Your task to perform on an android device: Open eBay Image 0: 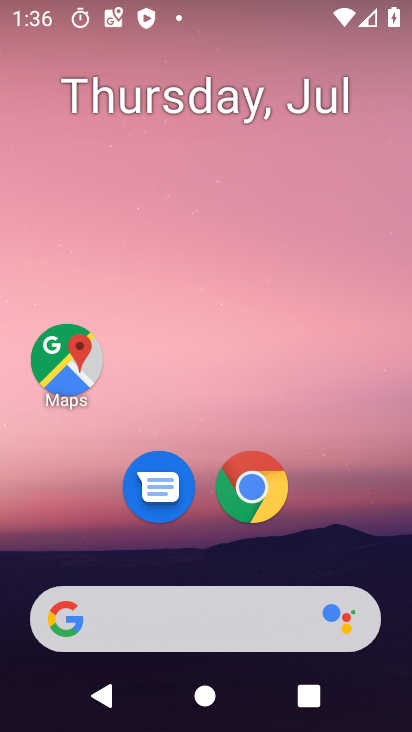
Step 0: drag from (263, 606) to (304, 64)
Your task to perform on an android device: Open eBay Image 1: 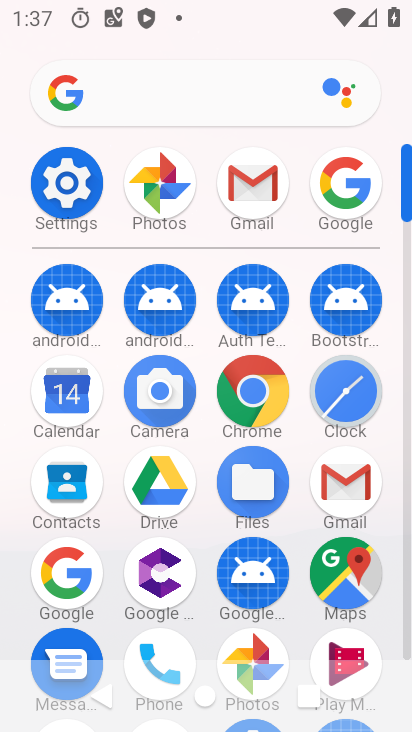
Step 1: drag from (223, 449) to (341, 116)
Your task to perform on an android device: Open eBay Image 2: 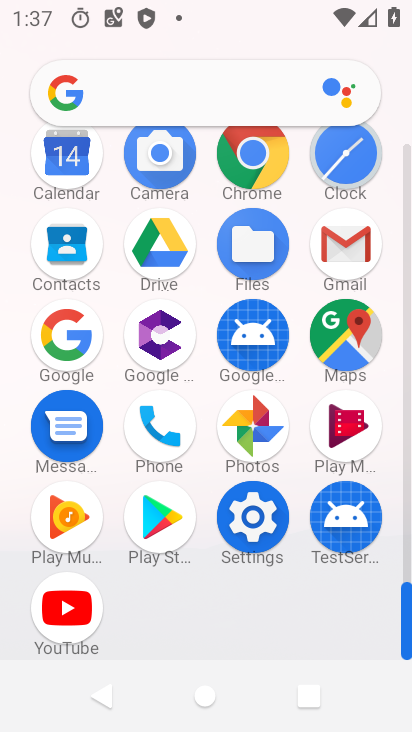
Step 2: click (256, 180)
Your task to perform on an android device: Open eBay Image 3: 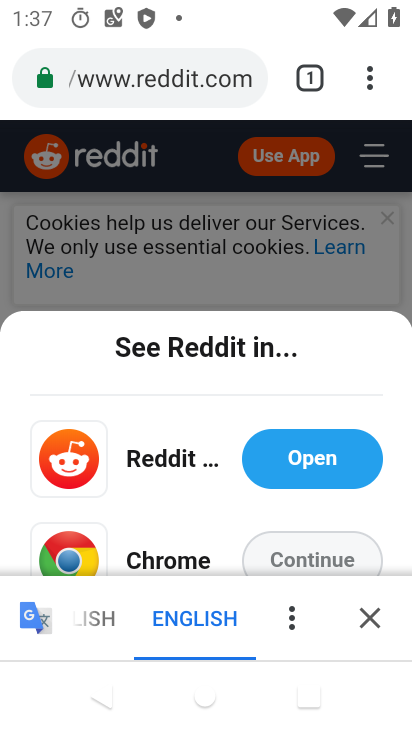
Step 3: click (195, 93)
Your task to perform on an android device: Open eBay Image 4: 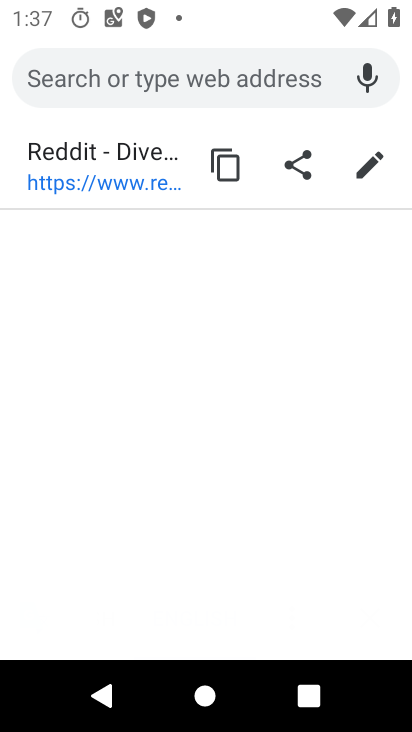
Step 4: press back button
Your task to perform on an android device: Open eBay Image 5: 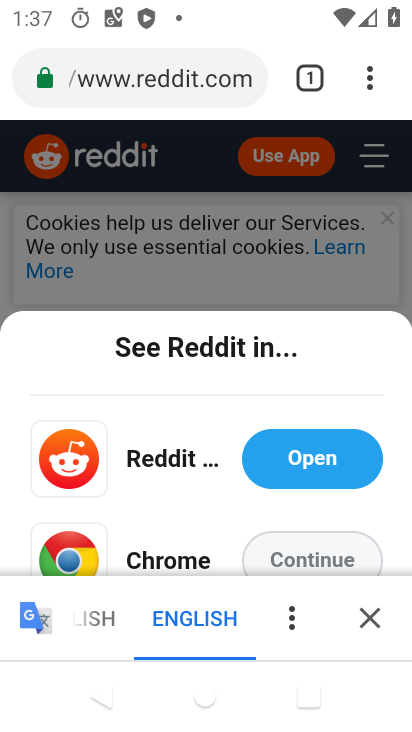
Step 5: drag from (311, 84) to (273, 414)
Your task to perform on an android device: Open eBay Image 6: 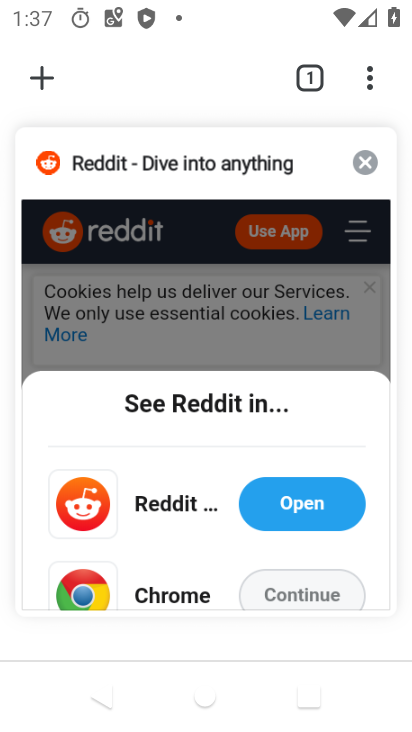
Step 6: click (35, 81)
Your task to perform on an android device: Open eBay Image 7: 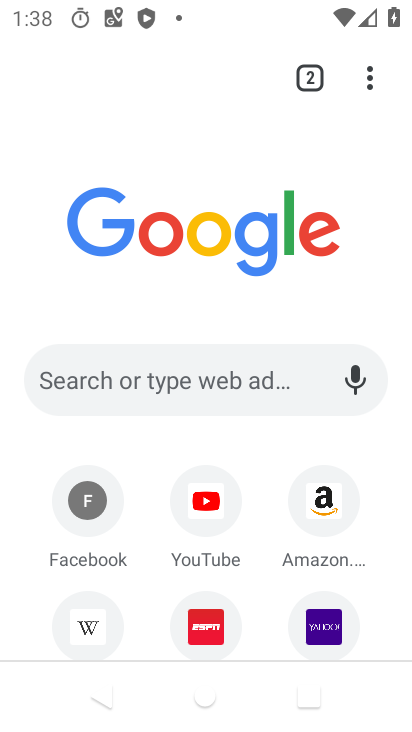
Step 7: drag from (267, 570) to (300, 342)
Your task to perform on an android device: Open eBay Image 8: 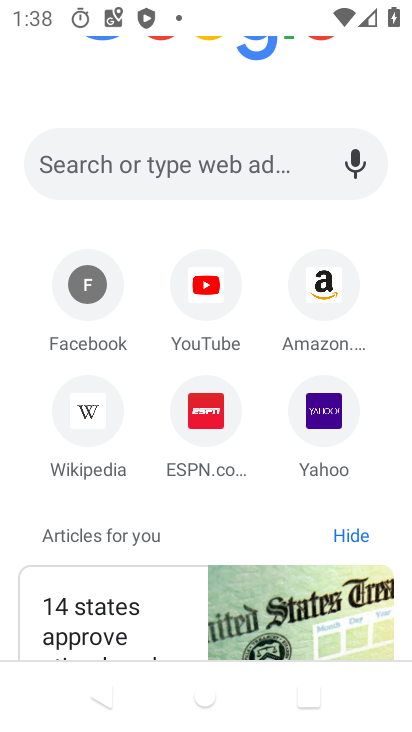
Step 8: click (233, 150)
Your task to perform on an android device: Open eBay Image 9: 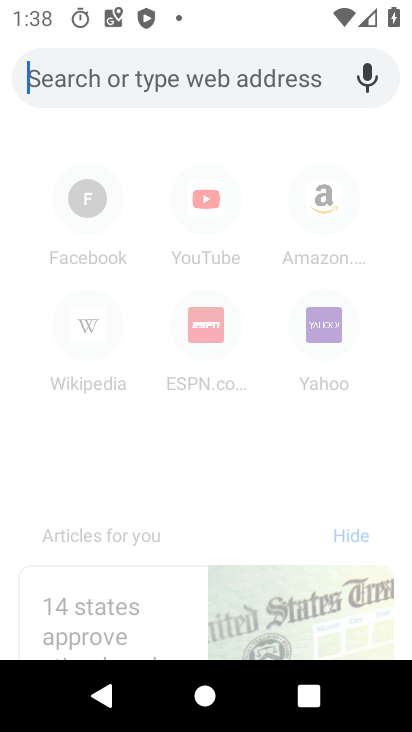
Step 9: type "ebay"
Your task to perform on an android device: Open eBay Image 10: 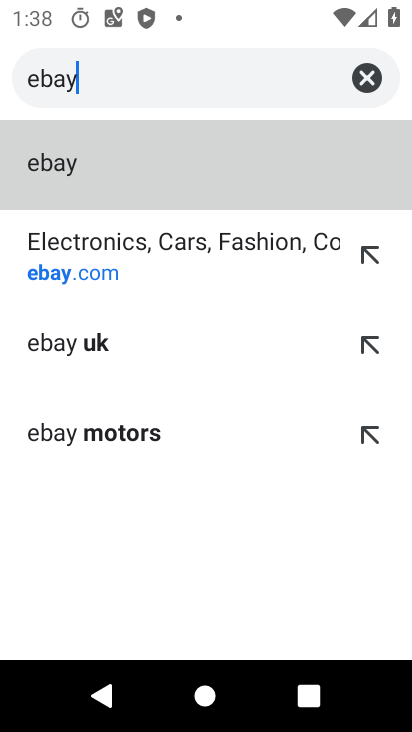
Step 10: click (202, 292)
Your task to perform on an android device: Open eBay Image 11: 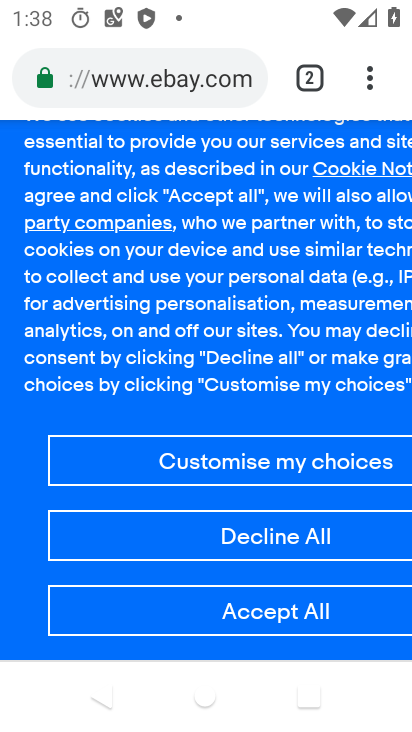
Step 11: task complete